Your task to perform on an android device: Open Youtube and go to the subscriptions tab Image 0: 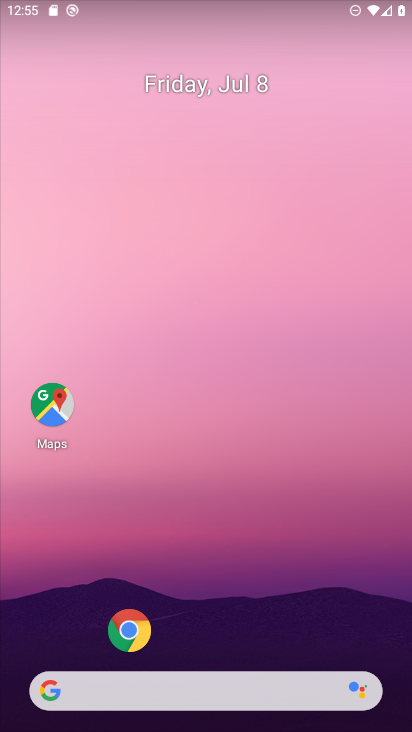
Step 0: drag from (315, 673) to (330, 99)
Your task to perform on an android device: Open Youtube and go to the subscriptions tab Image 1: 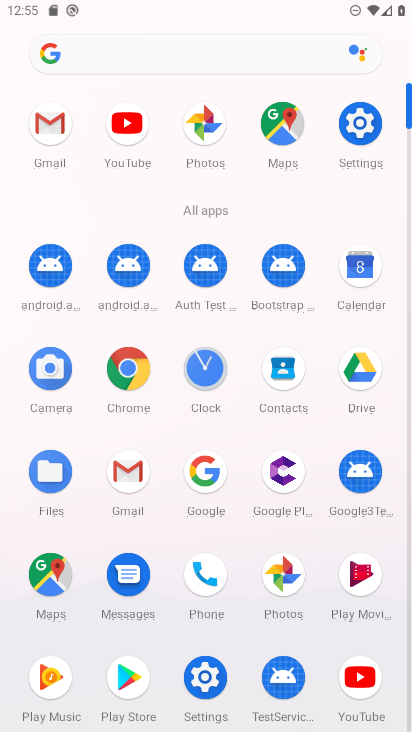
Step 1: click (346, 681)
Your task to perform on an android device: Open Youtube and go to the subscriptions tab Image 2: 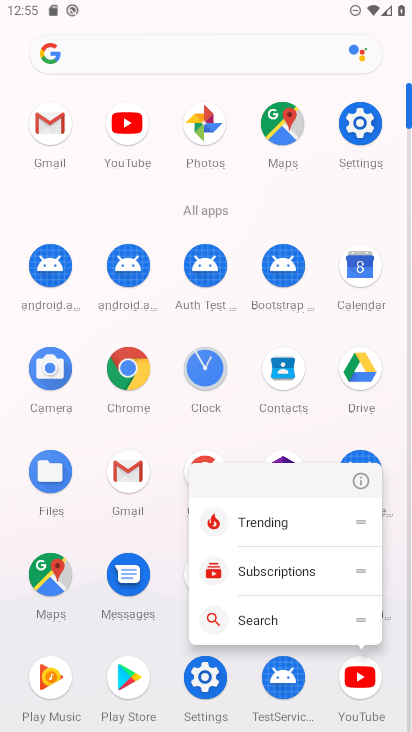
Step 2: click (362, 679)
Your task to perform on an android device: Open Youtube and go to the subscriptions tab Image 3: 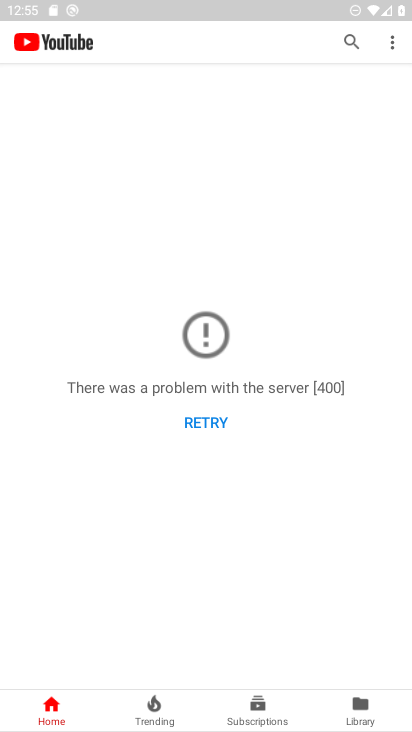
Step 3: click (192, 421)
Your task to perform on an android device: Open Youtube and go to the subscriptions tab Image 4: 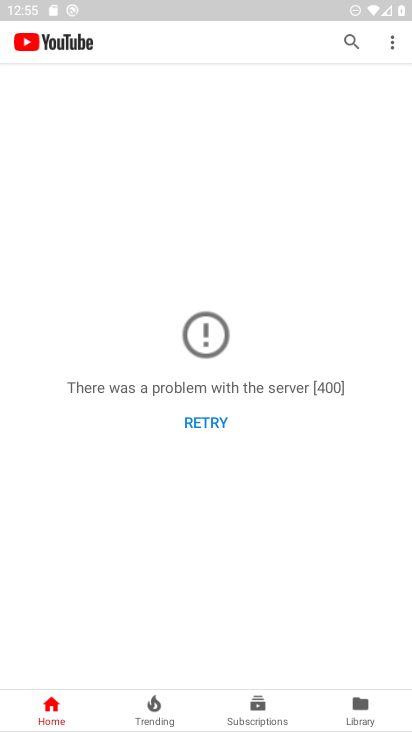
Step 4: task complete